Your task to perform on an android device: Open Reddit.com Image 0: 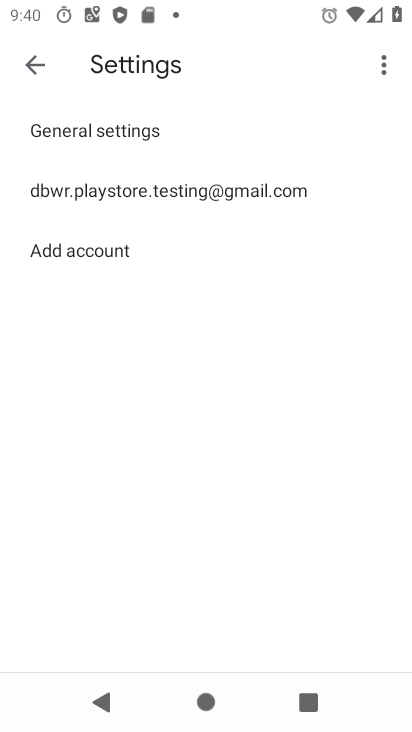
Step 0: press home button
Your task to perform on an android device: Open Reddit.com Image 1: 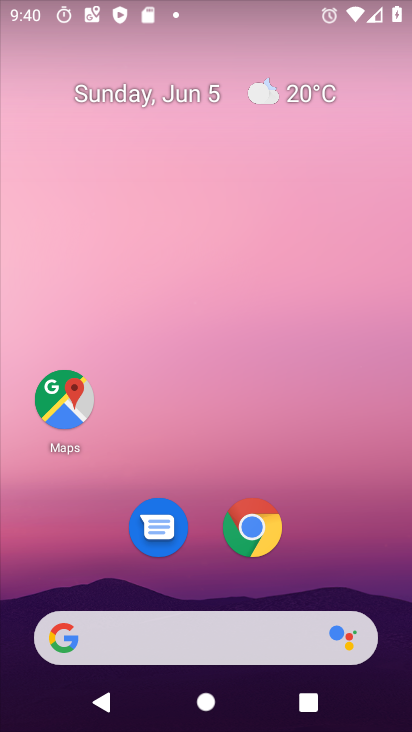
Step 1: drag from (346, 524) to (376, 0)
Your task to perform on an android device: Open Reddit.com Image 2: 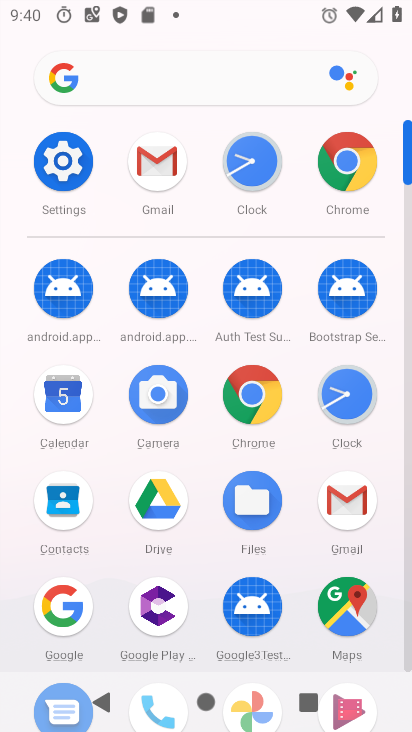
Step 2: click (361, 141)
Your task to perform on an android device: Open Reddit.com Image 3: 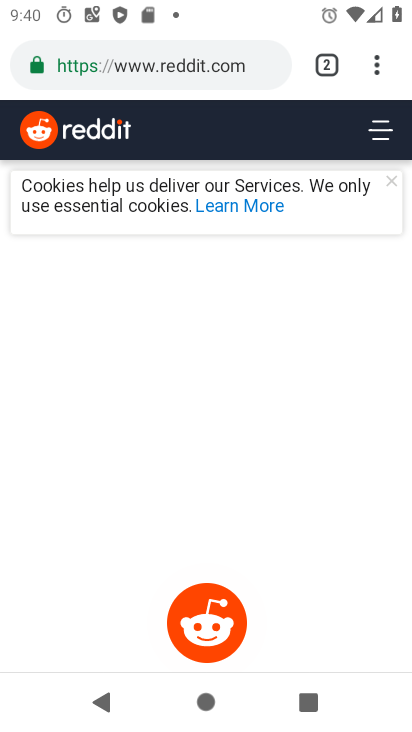
Step 3: click (144, 74)
Your task to perform on an android device: Open Reddit.com Image 4: 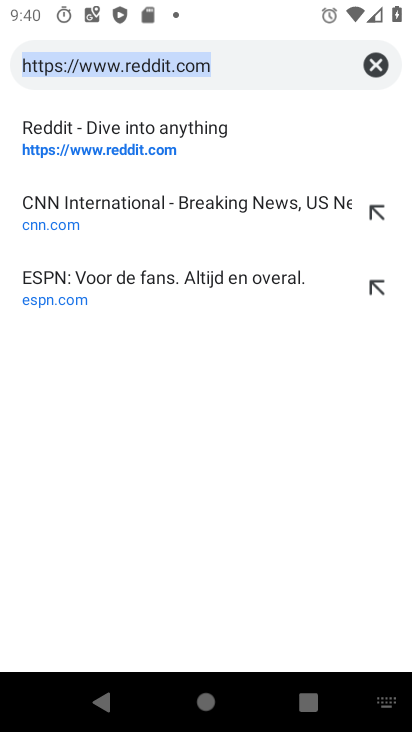
Step 4: click (112, 140)
Your task to perform on an android device: Open Reddit.com Image 5: 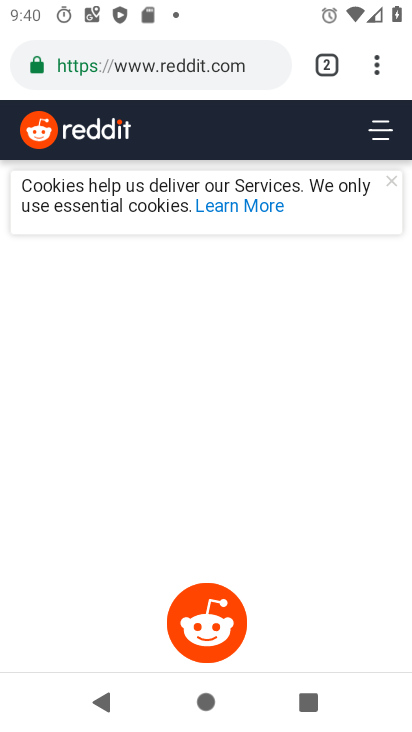
Step 5: task complete